Your task to perform on an android device: make emails show in primary in the gmail app Image 0: 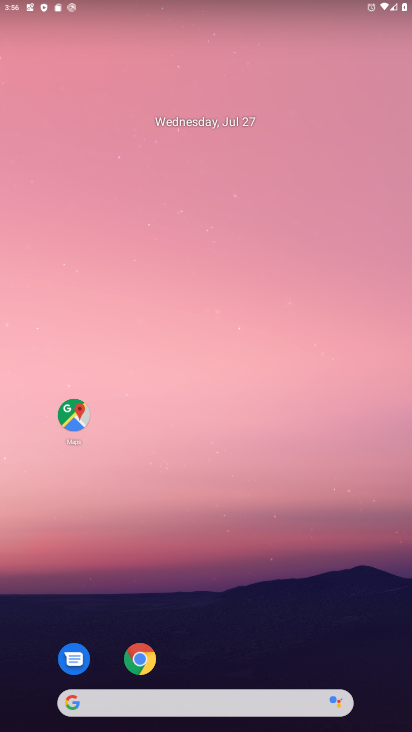
Step 0: drag from (290, 629) to (233, 1)
Your task to perform on an android device: make emails show in primary in the gmail app Image 1: 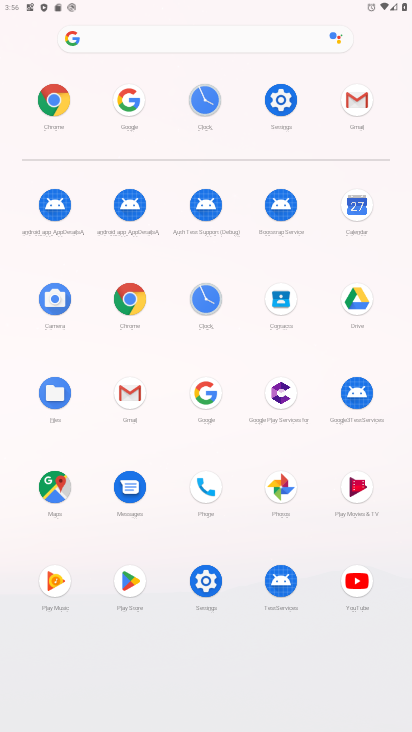
Step 1: click (133, 388)
Your task to perform on an android device: make emails show in primary in the gmail app Image 2: 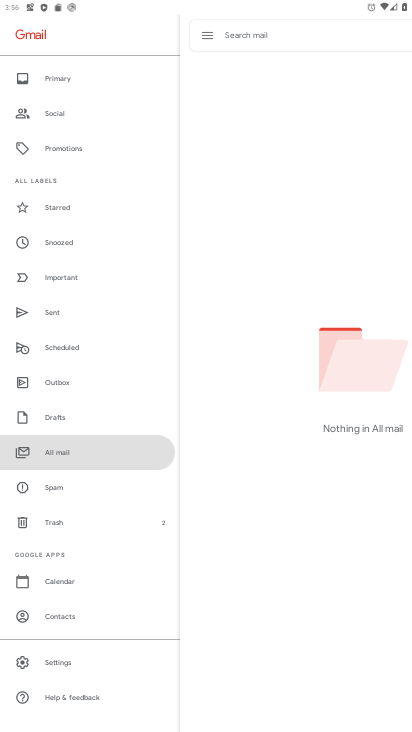
Step 2: click (46, 667)
Your task to perform on an android device: make emails show in primary in the gmail app Image 3: 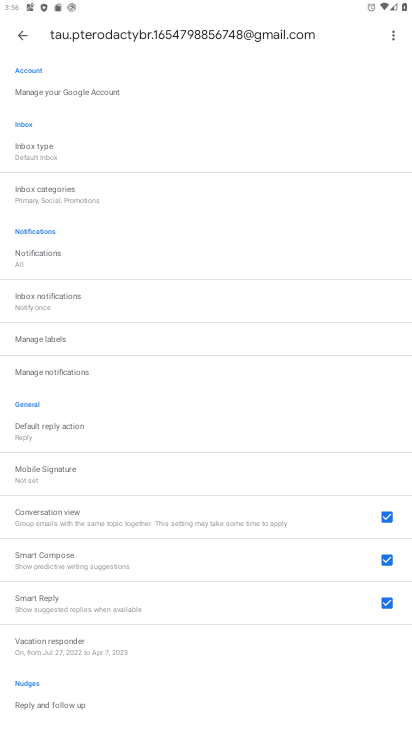
Step 3: click (34, 150)
Your task to perform on an android device: make emails show in primary in the gmail app Image 4: 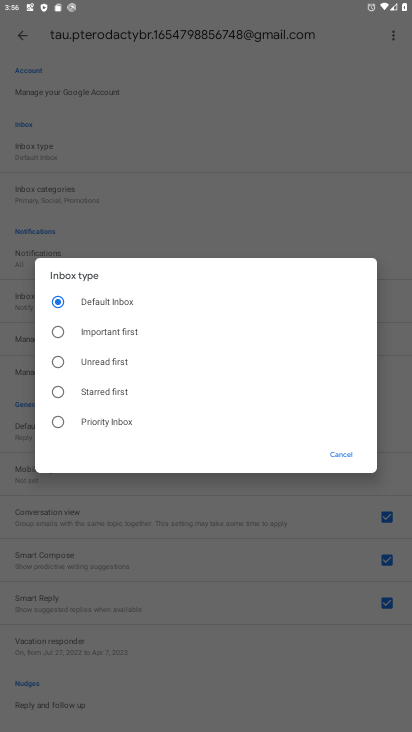
Step 4: click (109, 299)
Your task to perform on an android device: make emails show in primary in the gmail app Image 5: 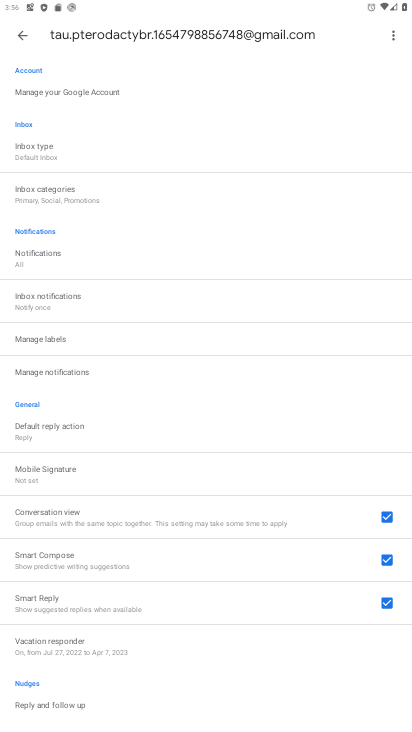
Step 5: task complete